Your task to perform on an android device: search for starred emails in the gmail app Image 0: 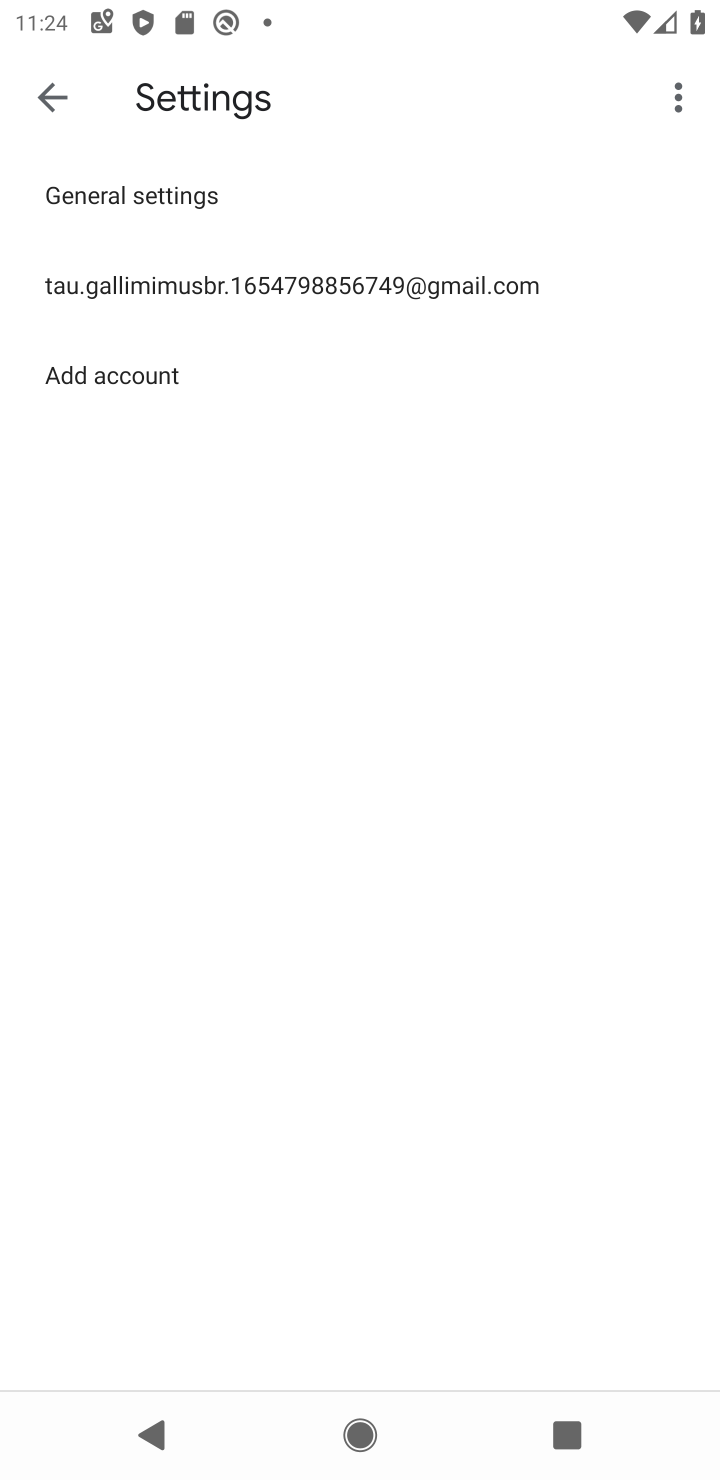
Step 0: press home button
Your task to perform on an android device: search for starred emails in the gmail app Image 1: 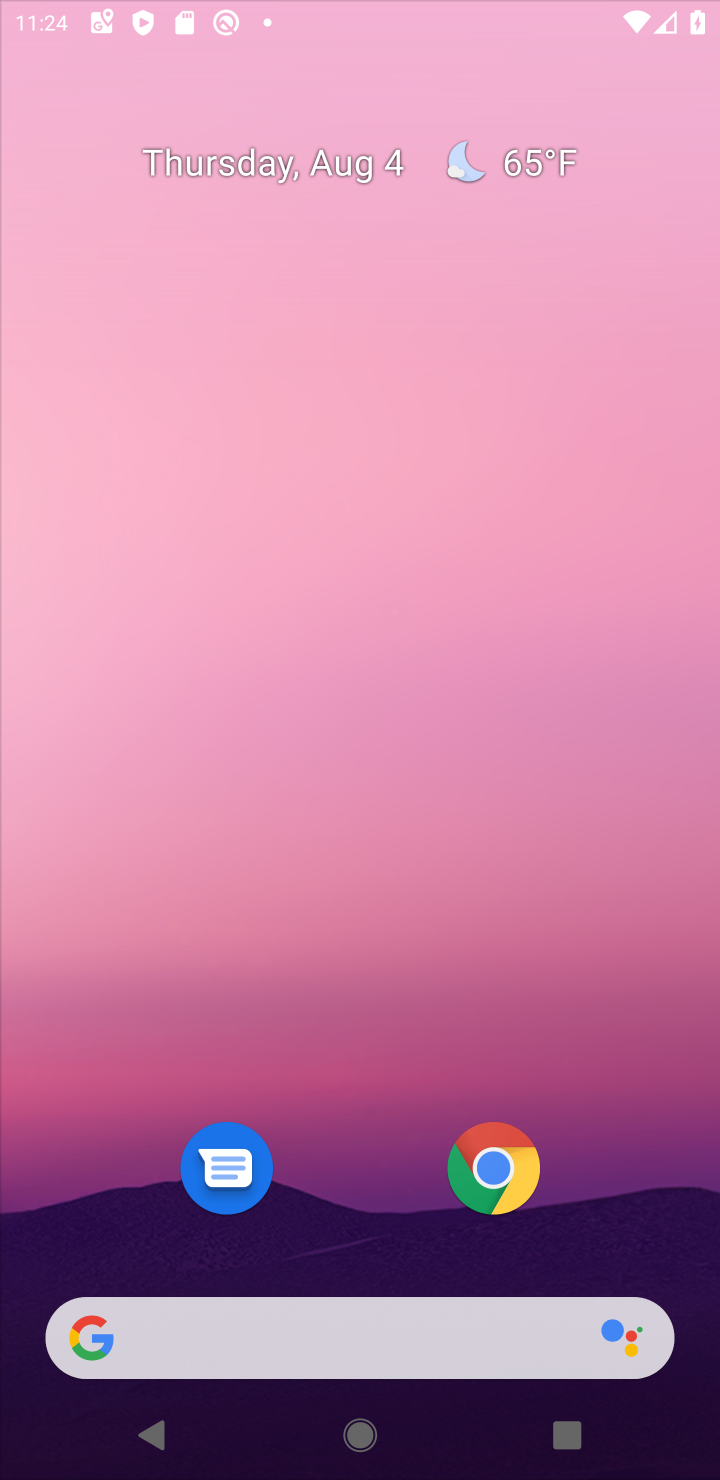
Step 1: drag from (637, 1326) to (200, 6)
Your task to perform on an android device: search for starred emails in the gmail app Image 2: 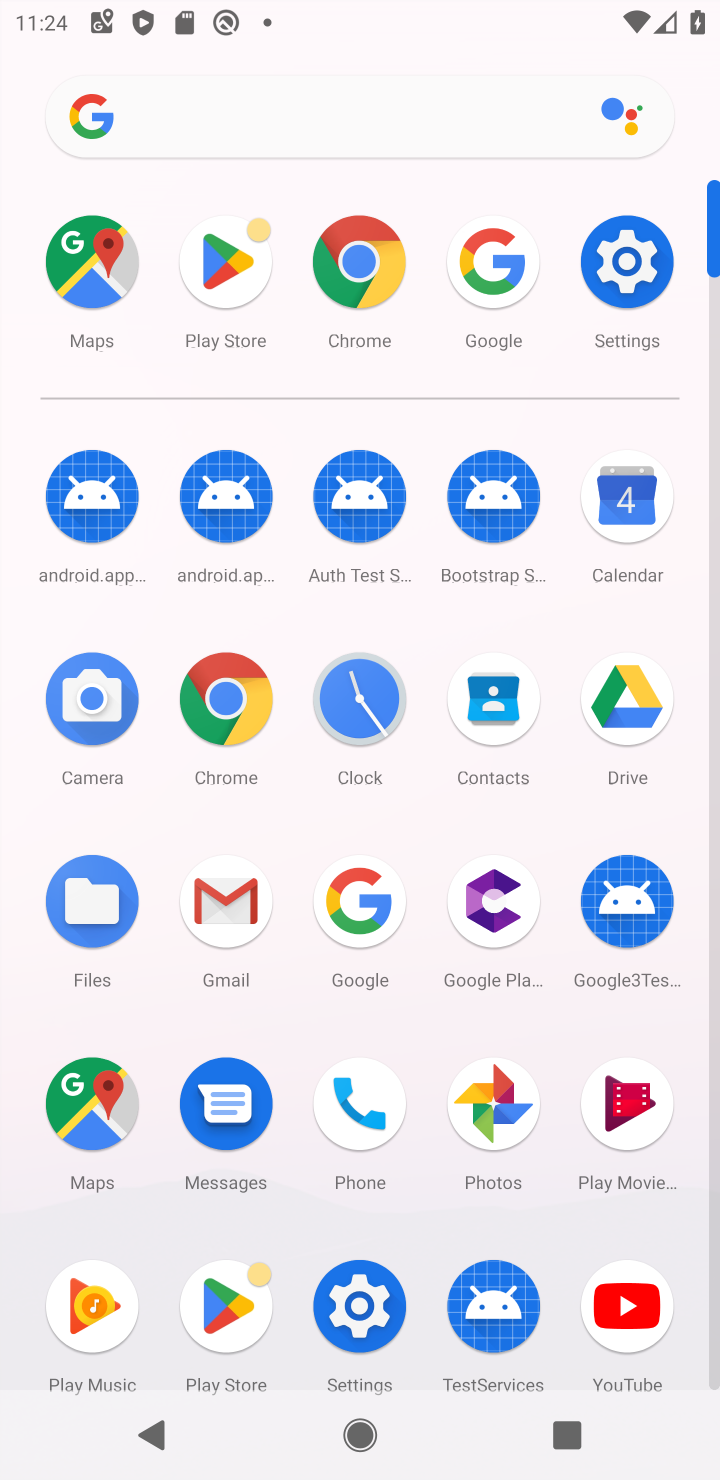
Step 2: click (226, 889)
Your task to perform on an android device: search for starred emails in the gmail app Image 3: 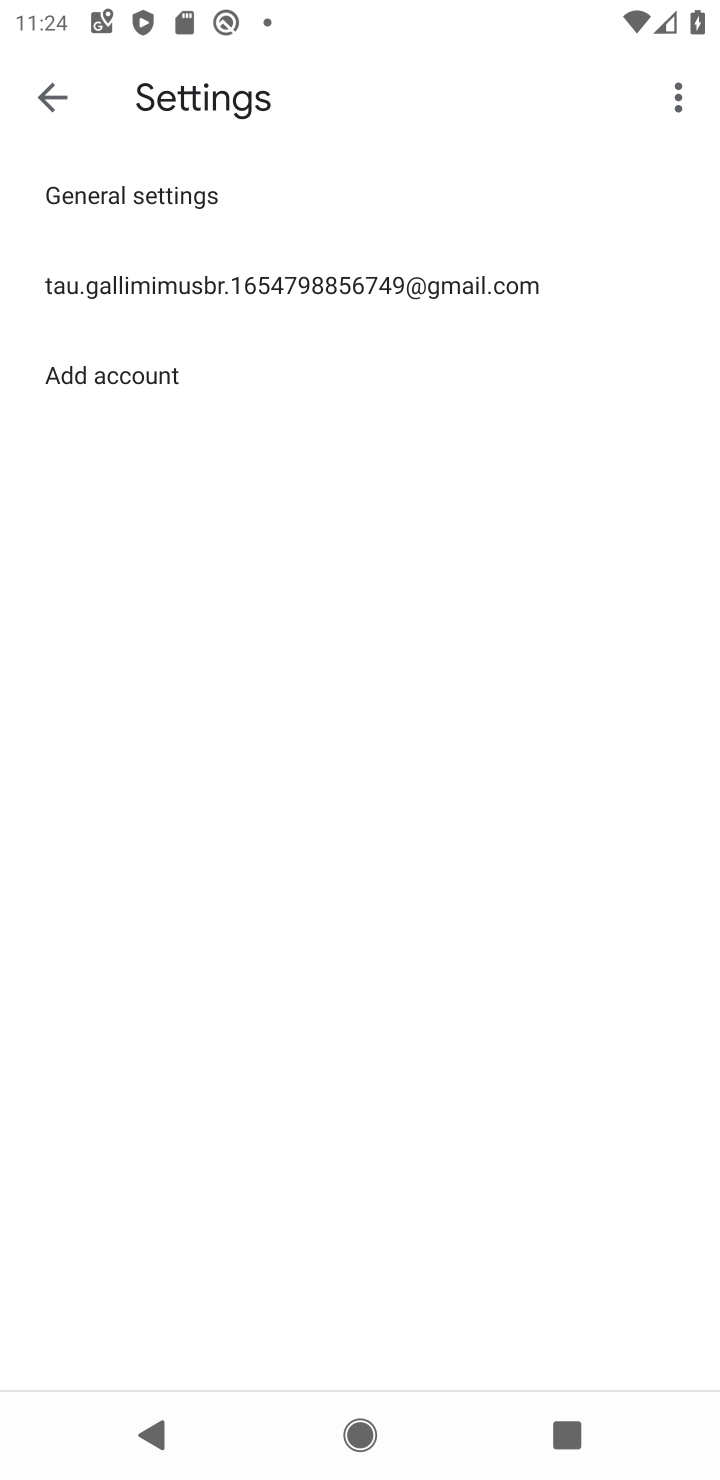
Step 3: press back button
Your task to perform on an android device: search for starred emails in the gmail app Image 4: 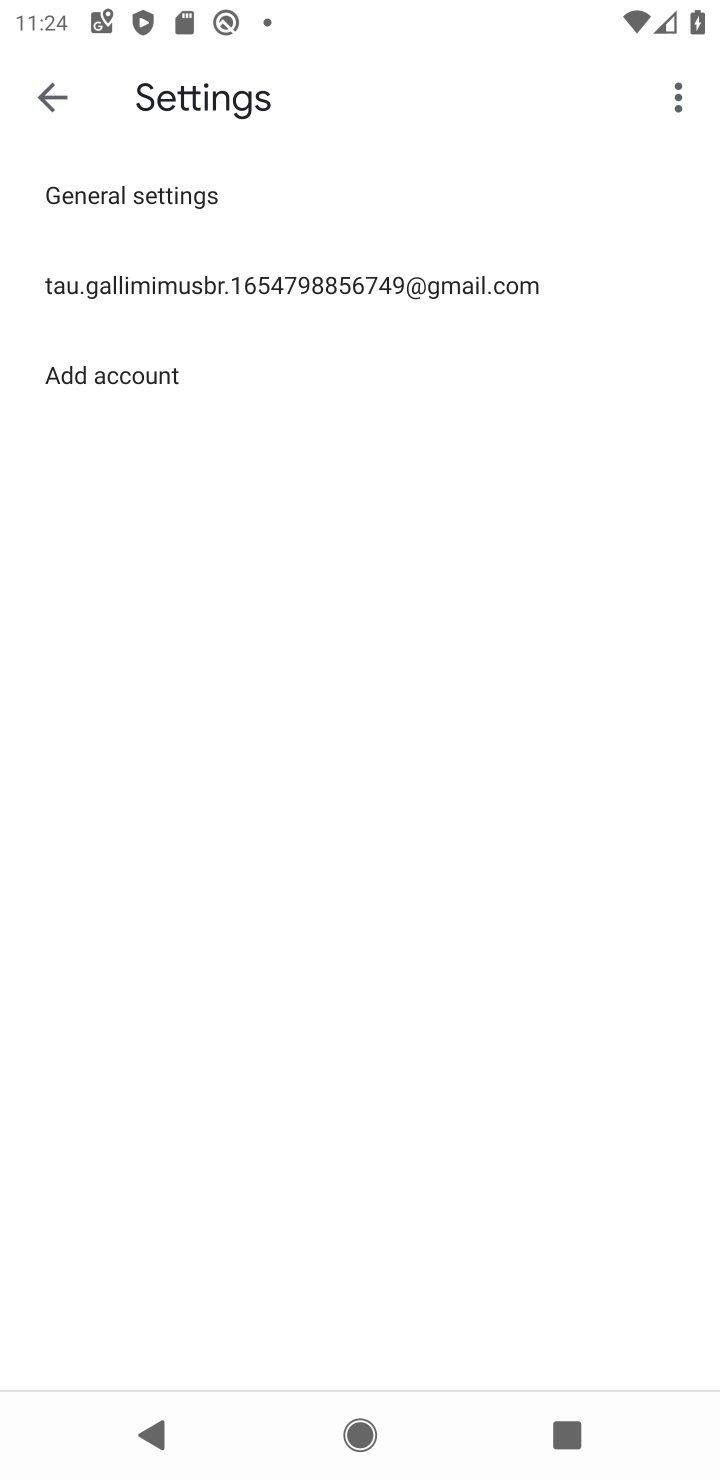
Step 4: press back button
Your task to perform on an android device: search for starred emails in the gmail app Image 5: 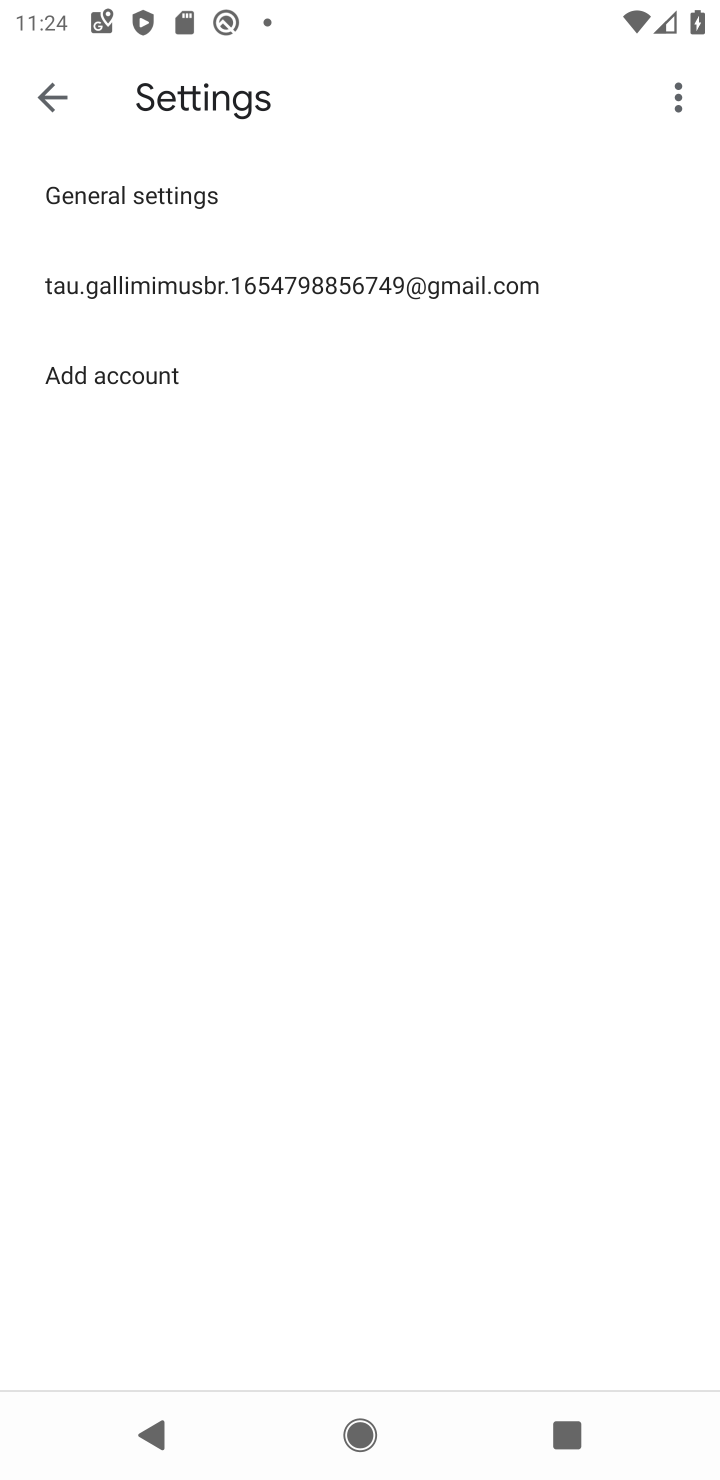
Step 5: press back button
Your task to perform on an android device: search for starred emails in the gmail app Image 6: 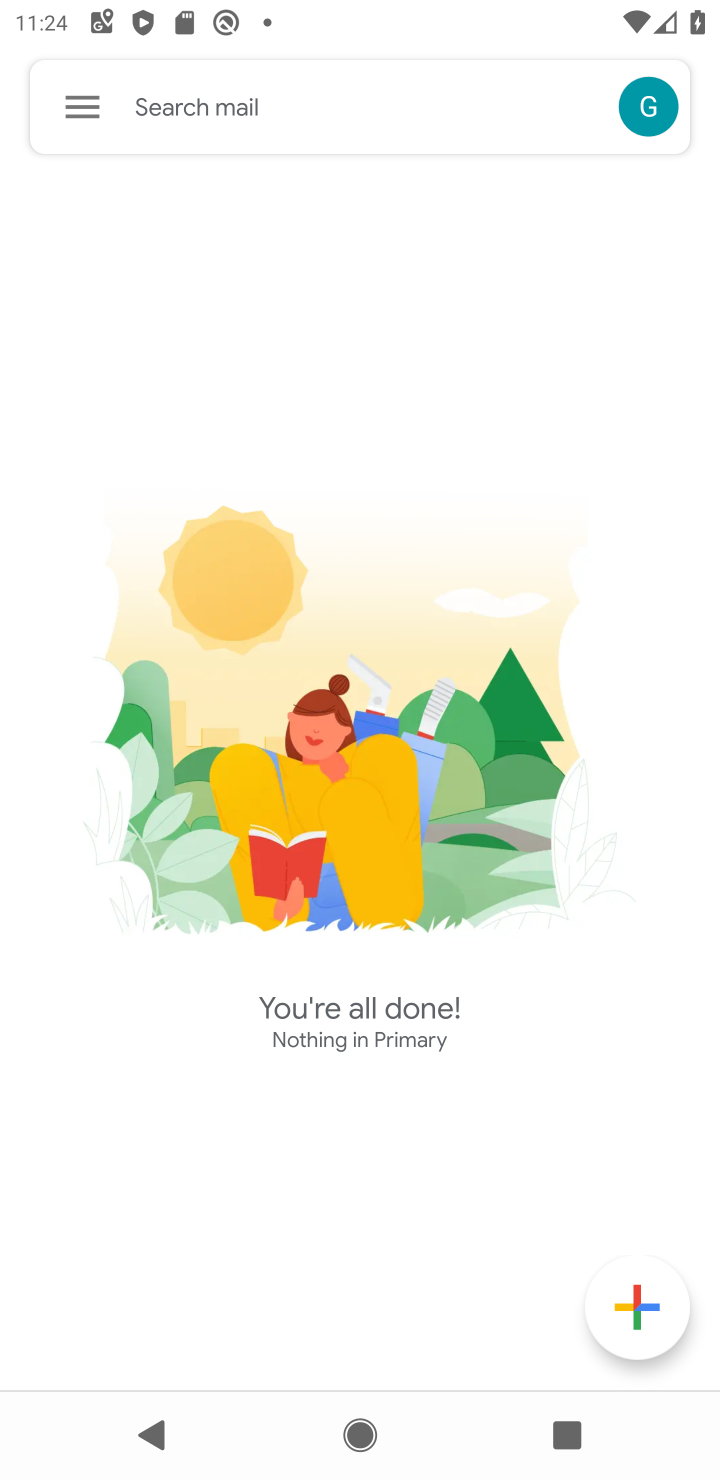
Step 6: press back button
Your task to perform on an android device: search for starred emails in the gmail app Image 7: 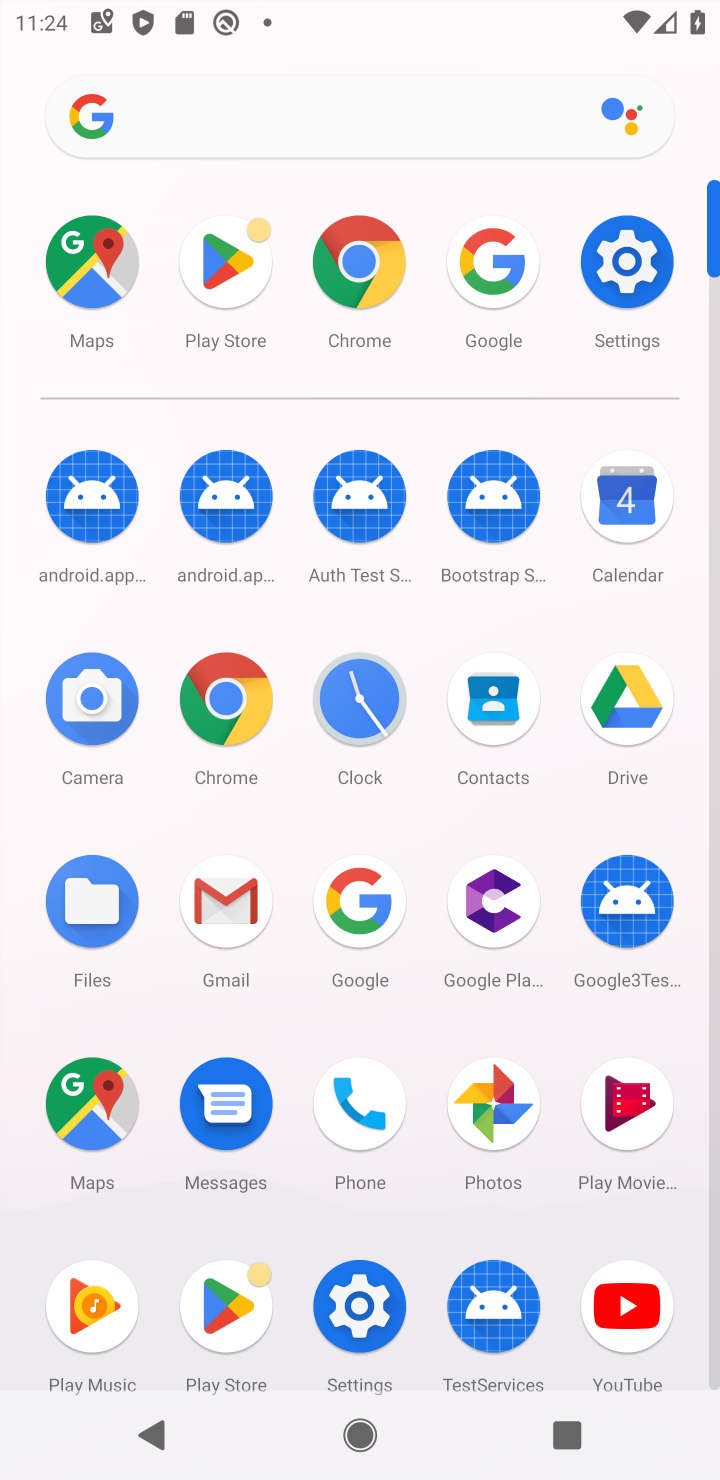
Step 7: click (240, 904)
Your task to perform on an android device: search for starred emails in the gmail app Image 8: 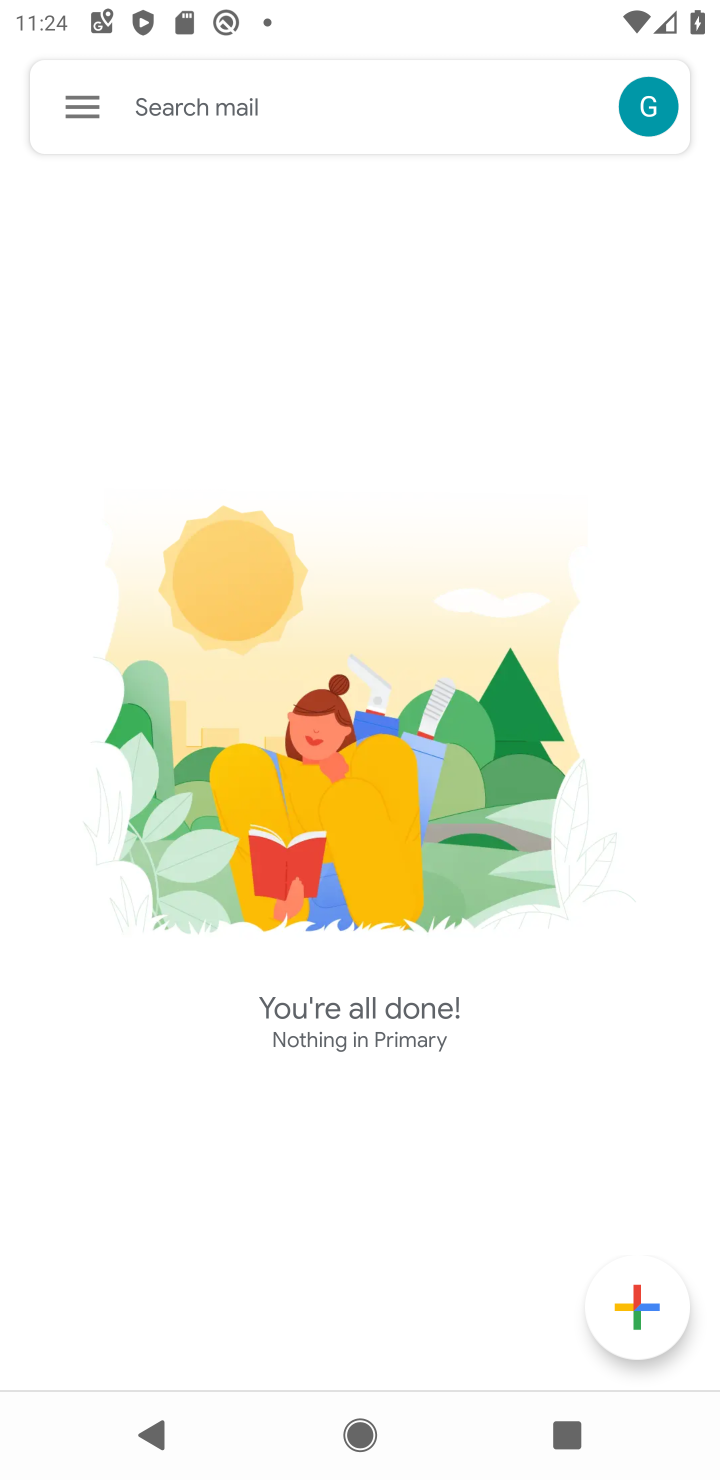
Step 8: click (79, 86)
Your task to perform on an android device: search for starred emails in the gmail app Image 9: 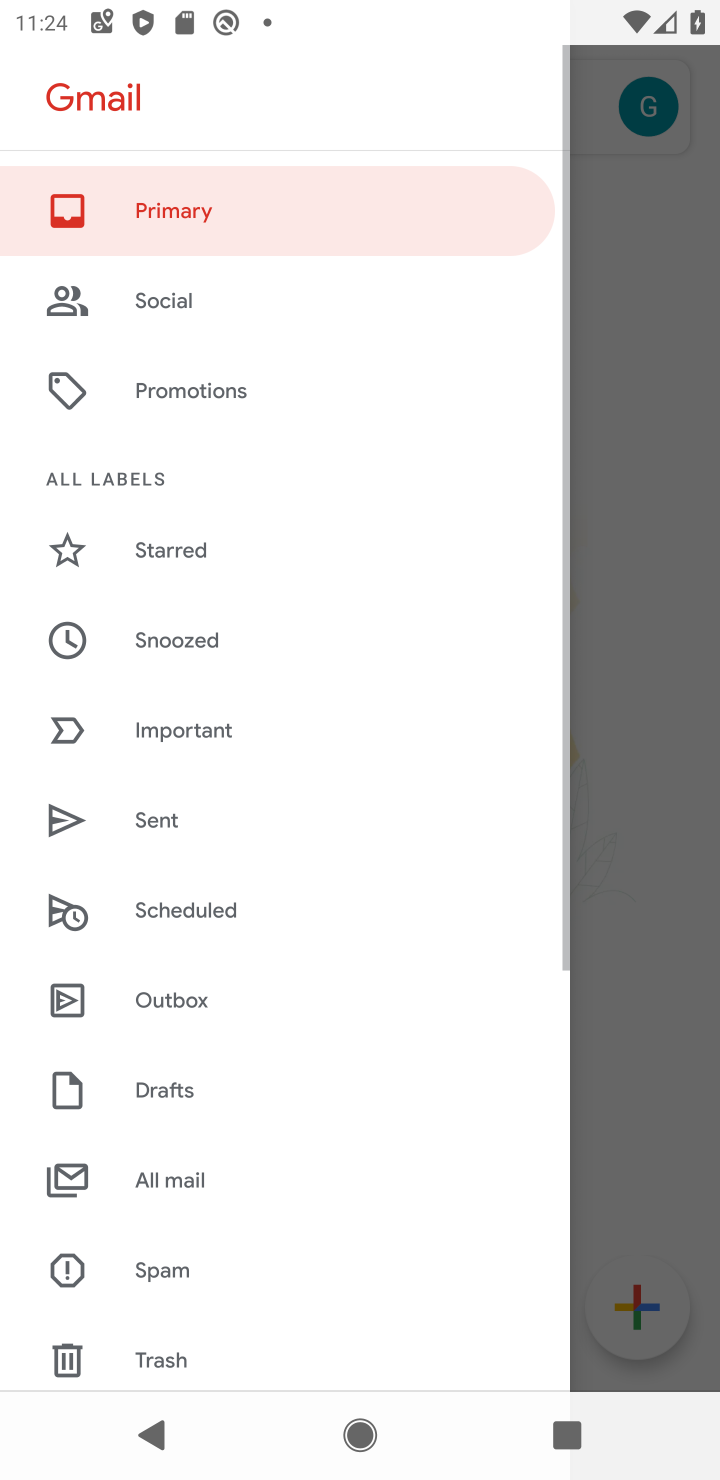
Step 9: click (201, 537)
Your task to perform on an android device: search for starred emails in the gmail app Image 10: 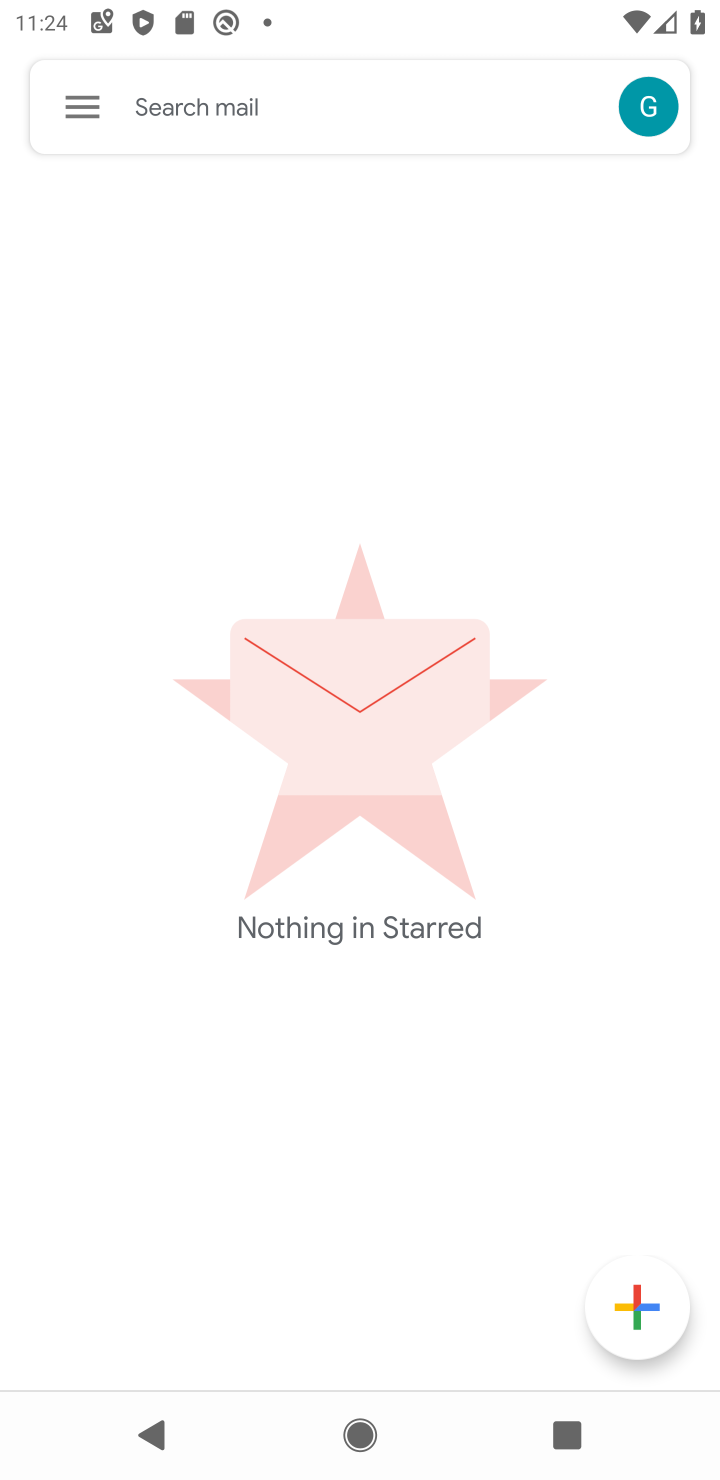
Step 10: task complete